Your task to perform on an android device: Do I have any events today? Image 0: 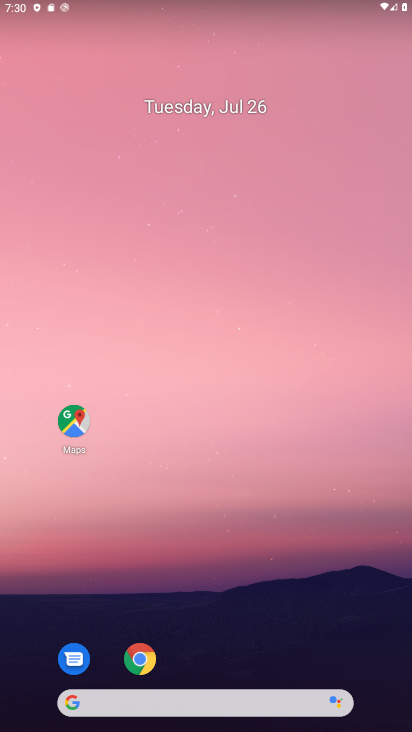
Step 0: drag from (238, 672) to (82, 118)
Your task to perform on an android device: Do I have any events today? Image 1: 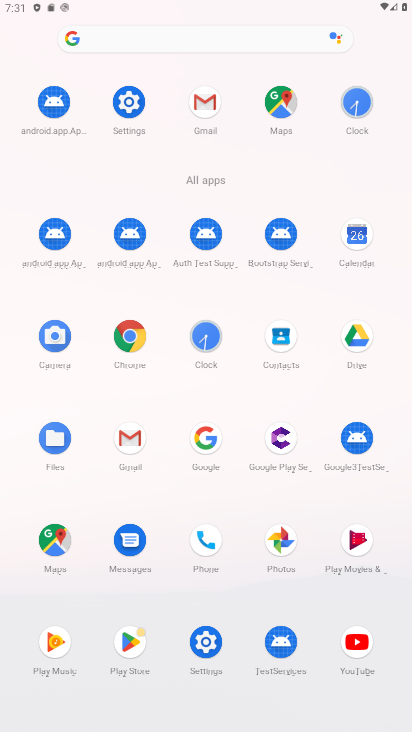
Step 1: click (350, 241)
Your task to perform on an android device: Do I have any events today? Image 2: 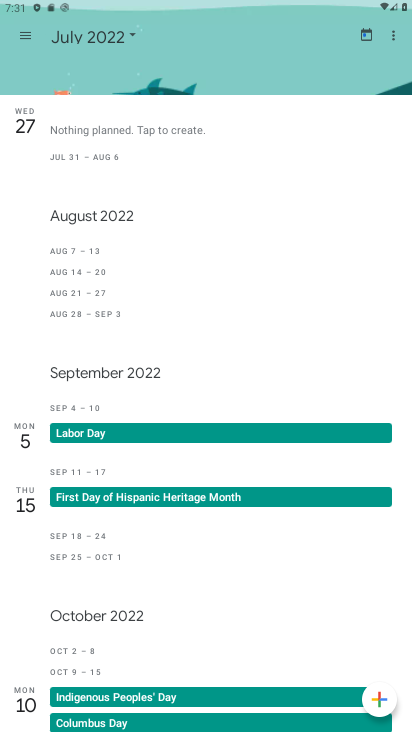
Step 2: click (16, 114)
Your task to perform on an android device: Do I have any events today? Image 3: 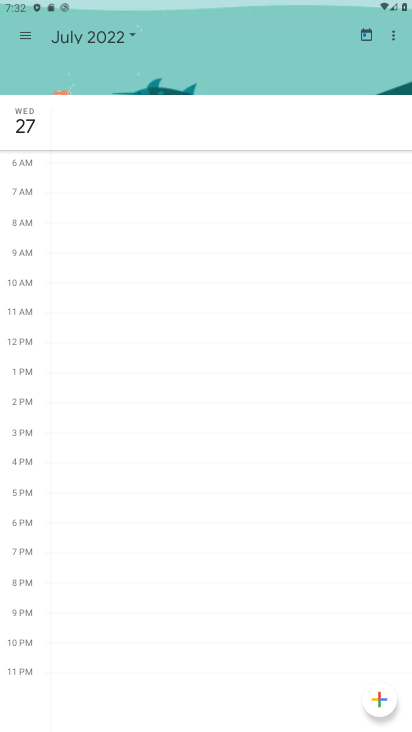
Step 3: task complete